Your task to perform on an android device: add a label to a message in the gmail app Image 0: 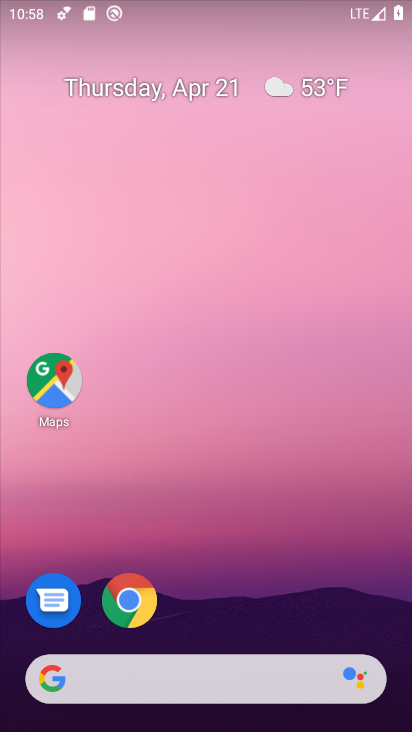
Step 0: drag from (233, 600) to (209, 102)
Your task to perform on an android device: add a label to a message in the gmail app Image 1: 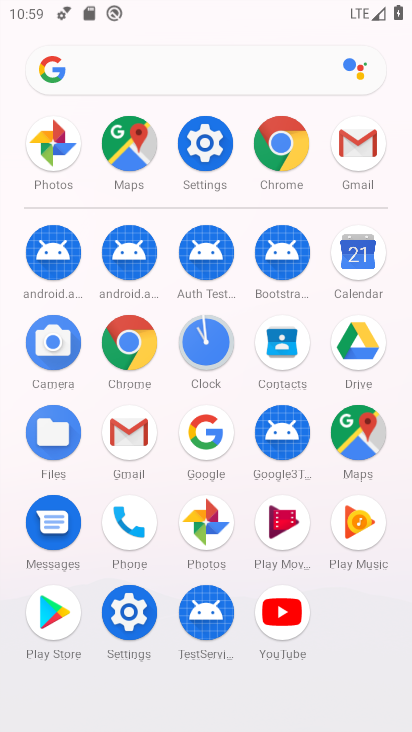
Step 1: click (121, 436)
Your task to perform on an android device: add a label to a message in the gmail app Image 2: 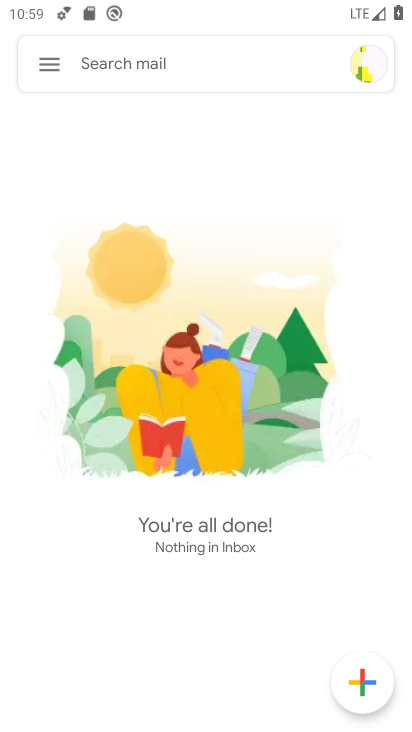
Step 2: click (46, 62)
Your task to perform on an android device: add a label to a message in the gmail app Image 3: 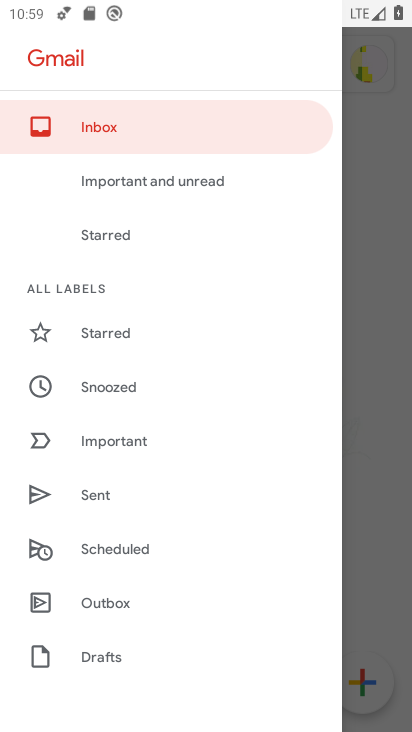
Step 3: drag from (178, 588) to (172, 301)
Your task to perform on an android device: add a label to a message in the gmail app Image 4: 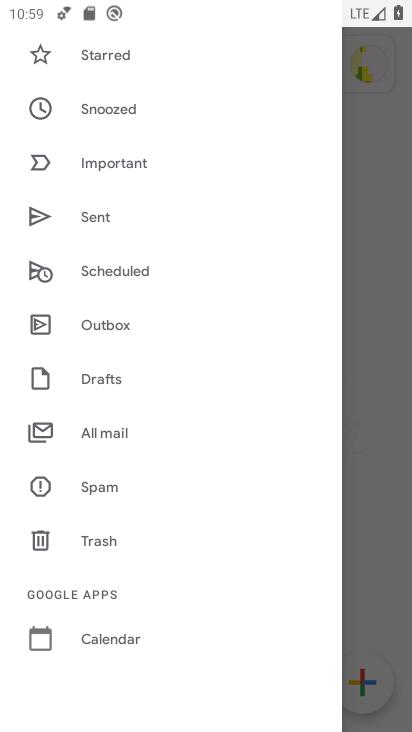
Step 4: click (118, 435)
Your task to perform on an android device: add a label to a message in the gmail app Image 5: 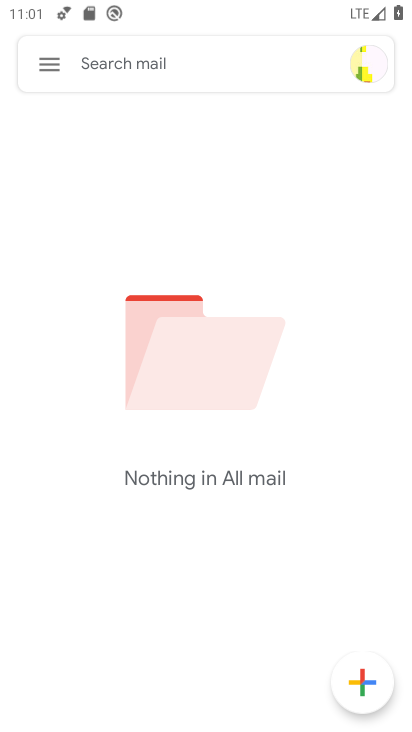
Step 5: task complete